Your task to perform on an android device: Open the web browser Image 0: 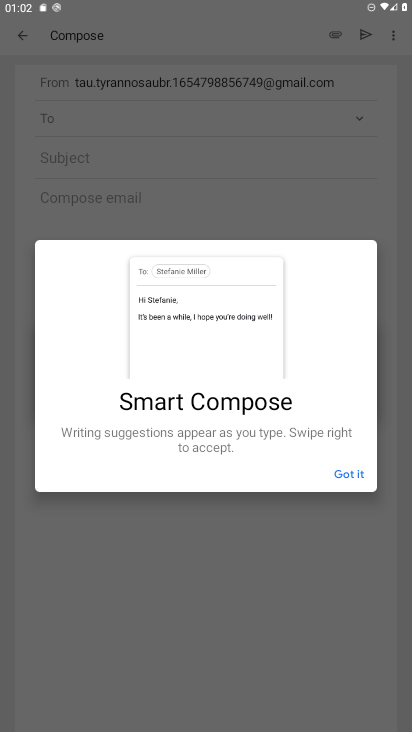
Step 0: press home button
Your task to perform on an android device: Open the web browser Image 1: 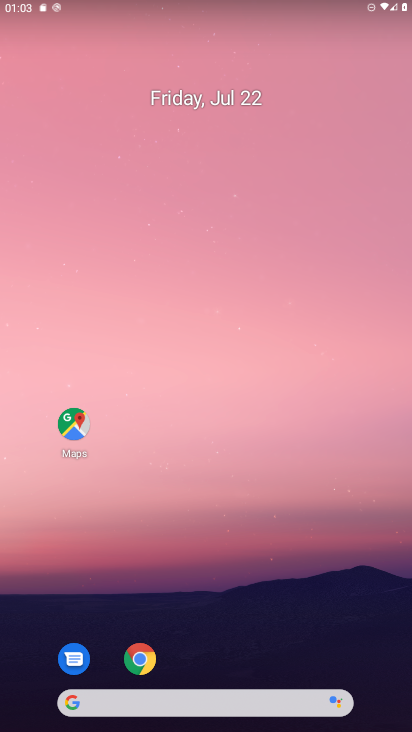
Step 1: click (140, 658)
Your task to perform on an android device: Open the web browser Image 2: 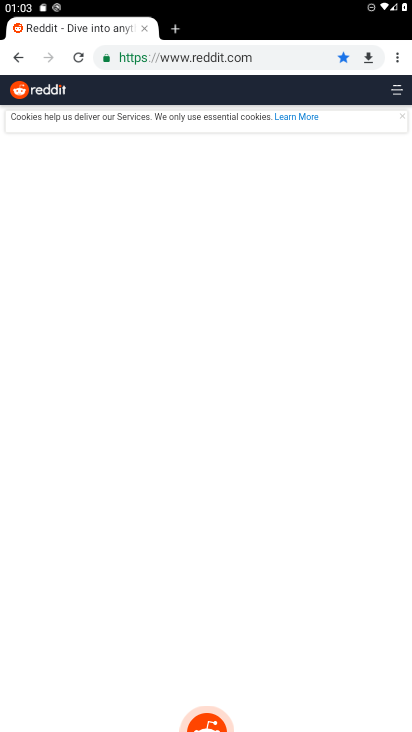
Step 2: task complete